Your task to perform on an android device: open the mobile data screen to see how much data has been used Image 0: 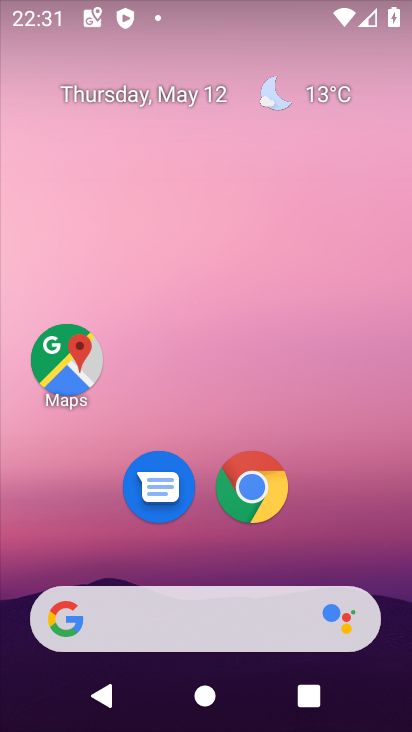
Step 0: drag from (231, 12) to (328, 606)
Your task to perform on an android device: open the mobile data screen to see how much data has been used Image 1: 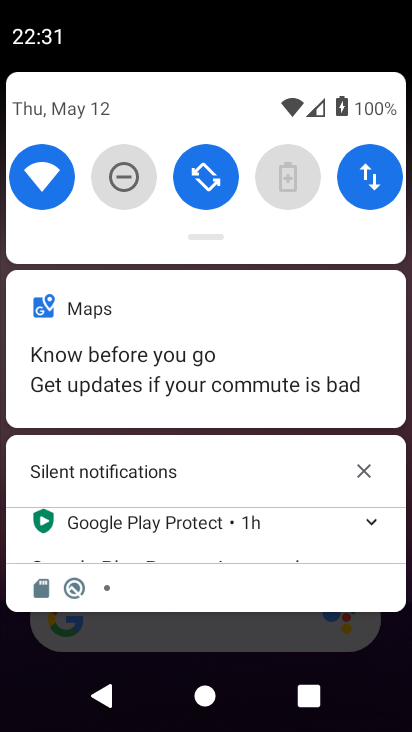
Step 1: click (387, 187)
Your task to perform on an android device: open the mobile data screen to see how much data has been used Image 2: 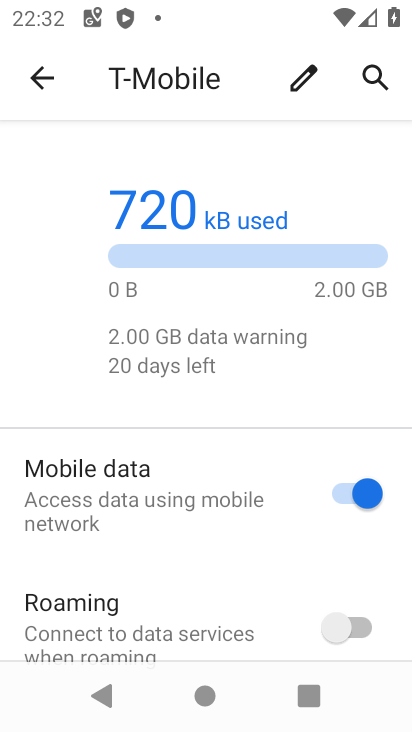
Step 2: task complete